Your task to perform on an android device: What is the recent news? Image 0: 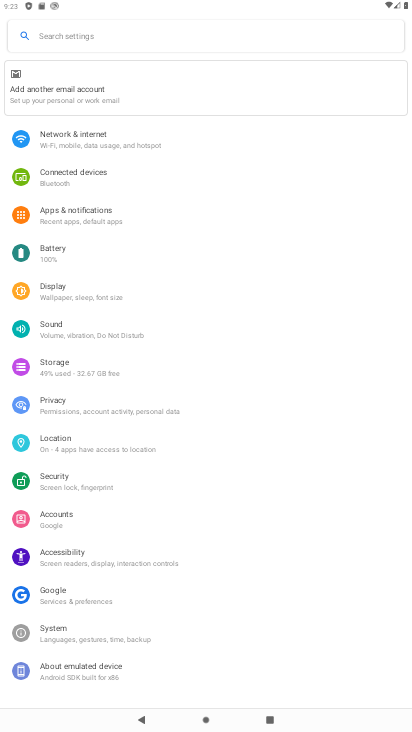
Step 0: press home button
Your task to perform on an android device: What is the recent news? Image 1: 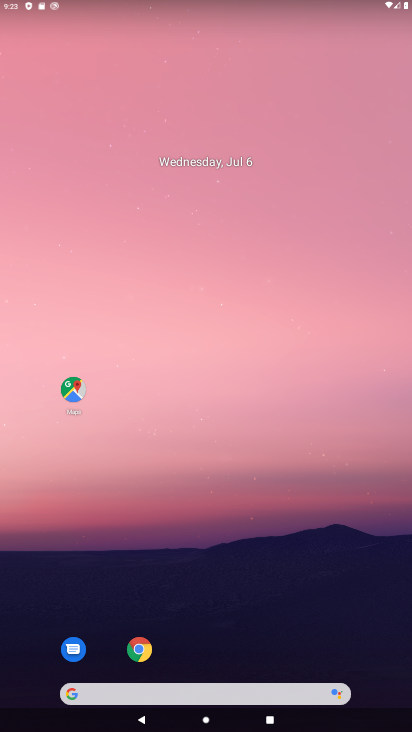
Step 1: task complete